Your task to perform on an android device: Open accessibility settings Image 0: 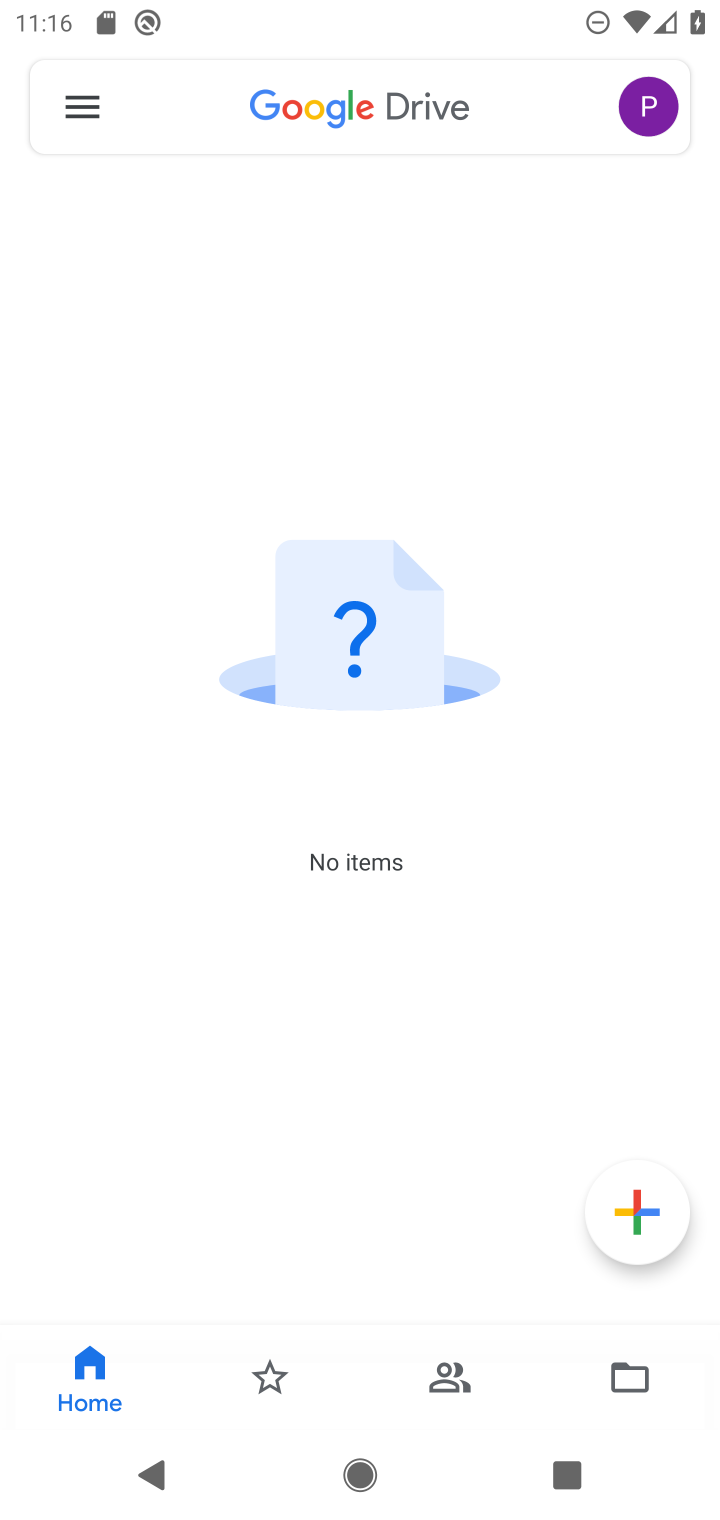
Step 0: press home button
Your task to perform on an android device: Open accessibility settings Image 1: 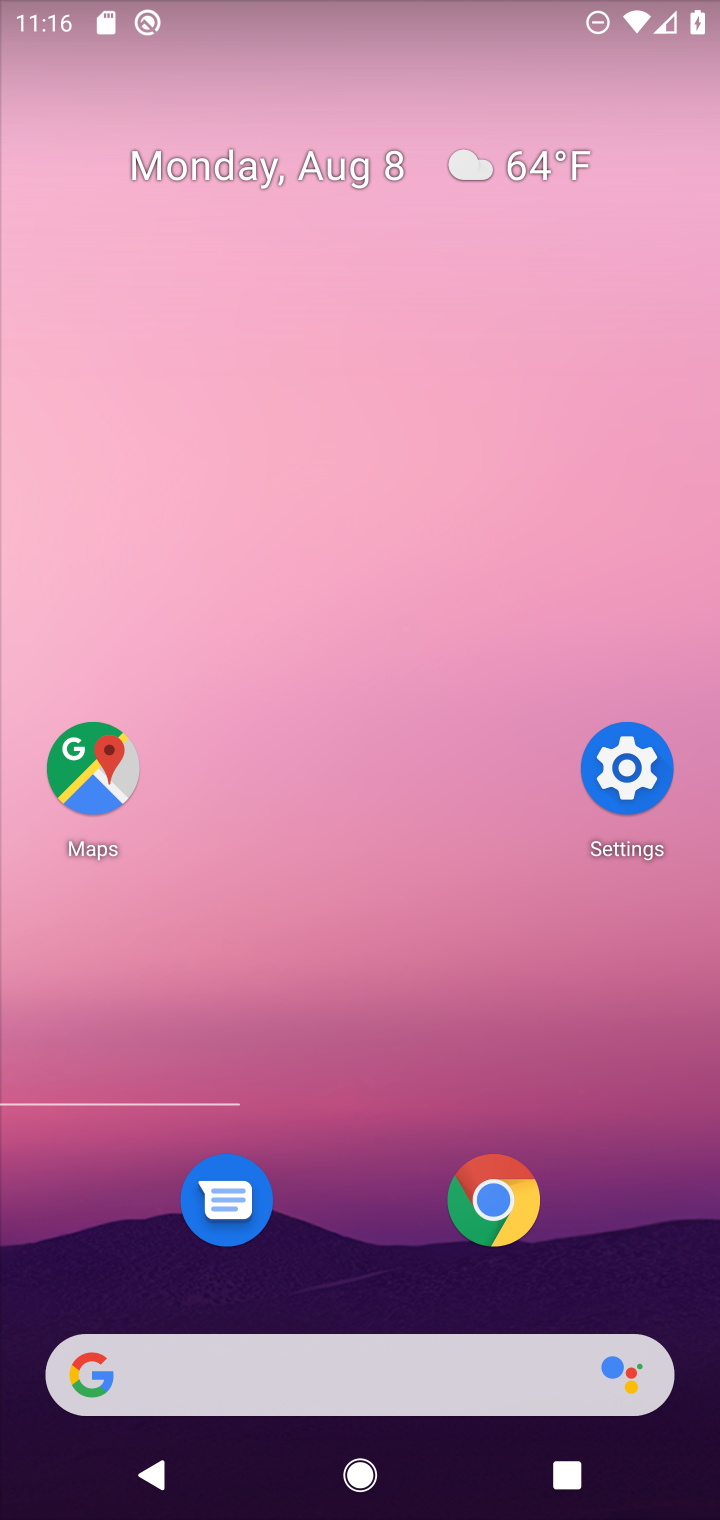
Step 1: click (624, 763)
Your task to perform on an android device: Open accessibility settings Image 2: 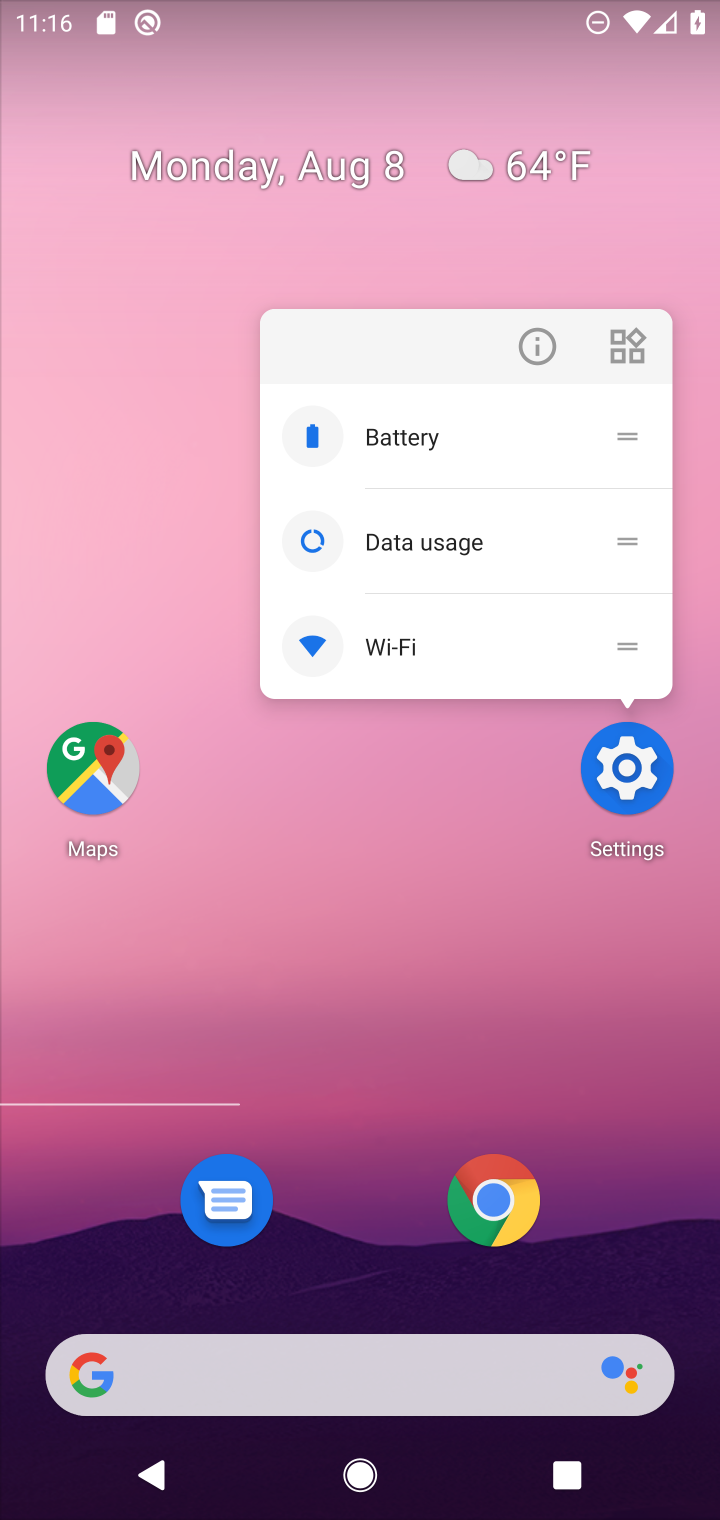
Step 2: click (624, 783)
Your task to perform on an android device: Open accessibility settings Image 3: 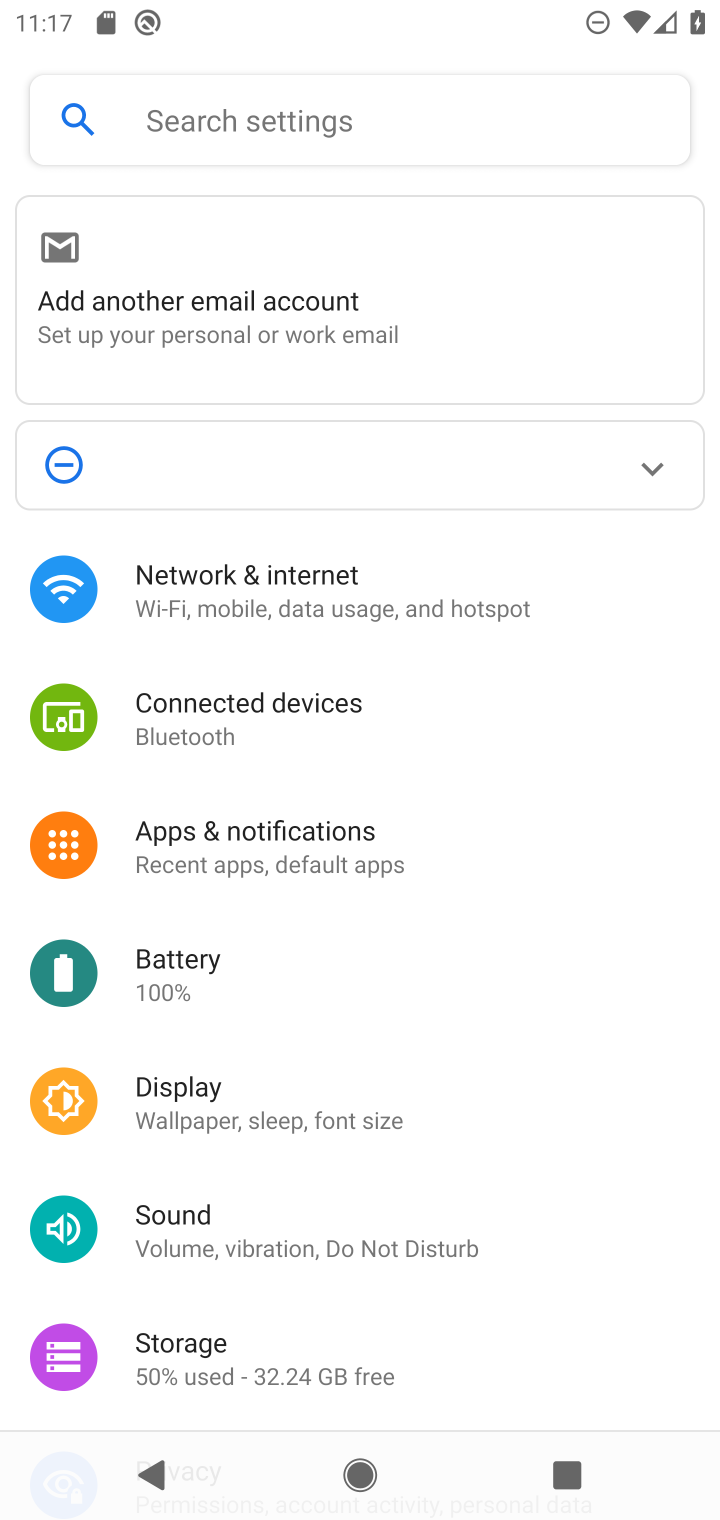
Step 3: drag from (491, 1341) to (640, 29)
Your task to perform on an android device: Open accessibility settings Image 4: 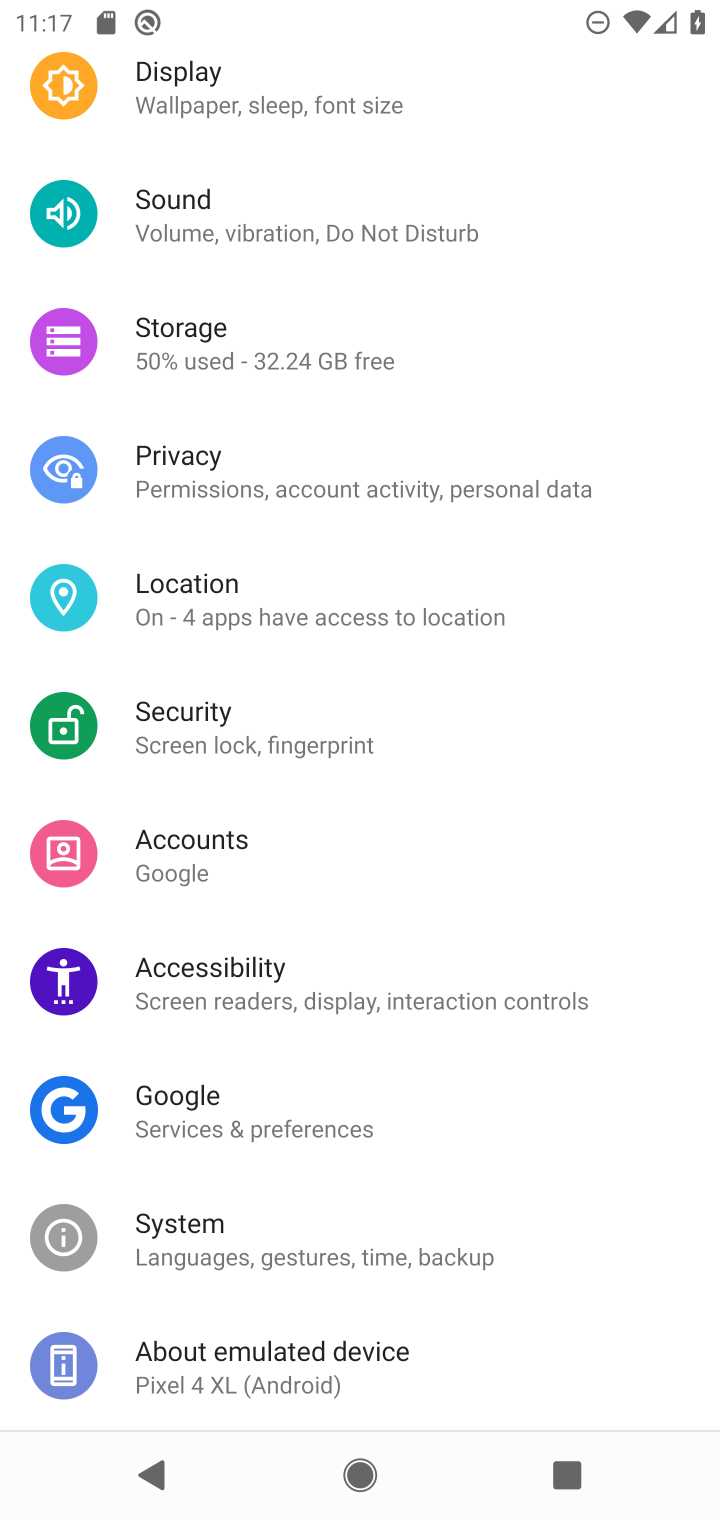
Step 4: click (165, 982)
Your task to perform on an android device: Open accessibility settings Image 5: 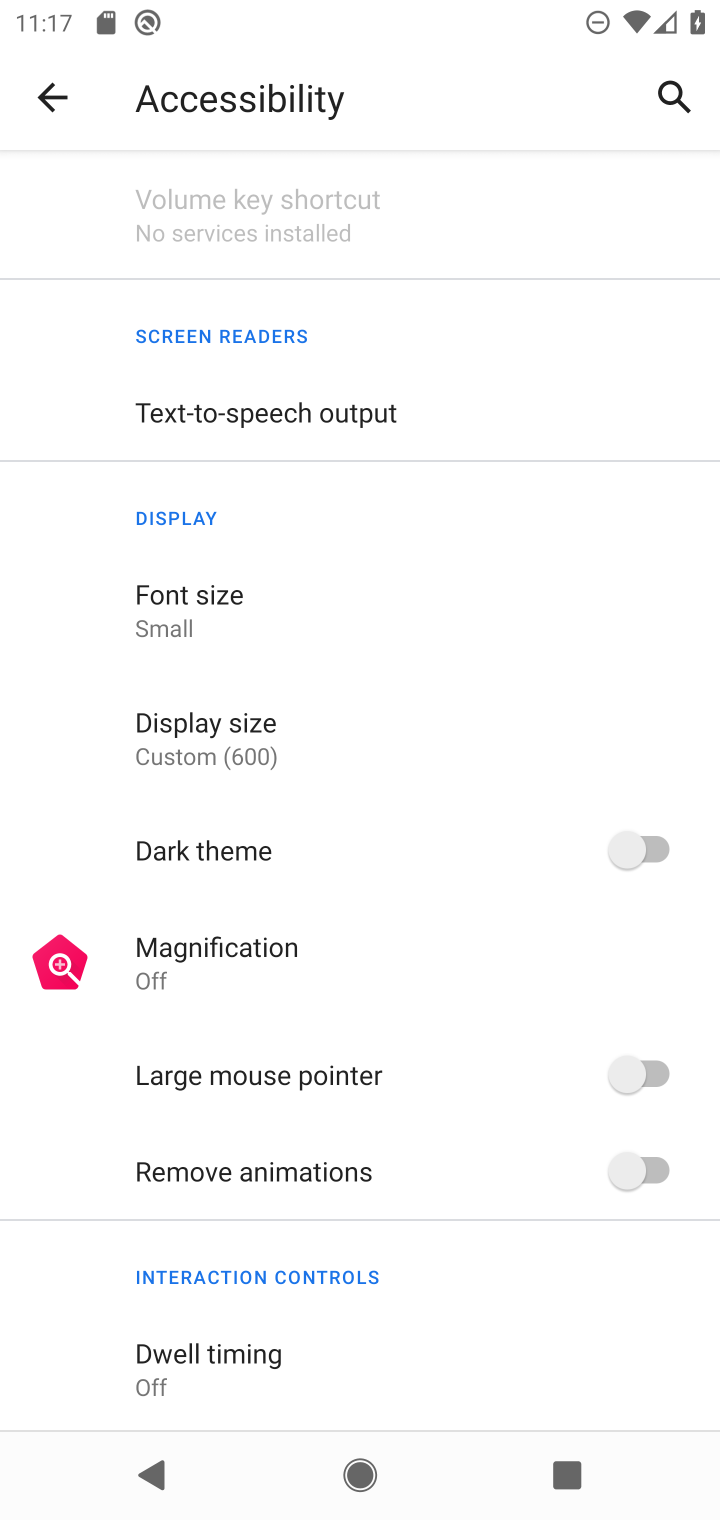
Step 5: task complete